Your task to perform on an android device: check android version Image 0: 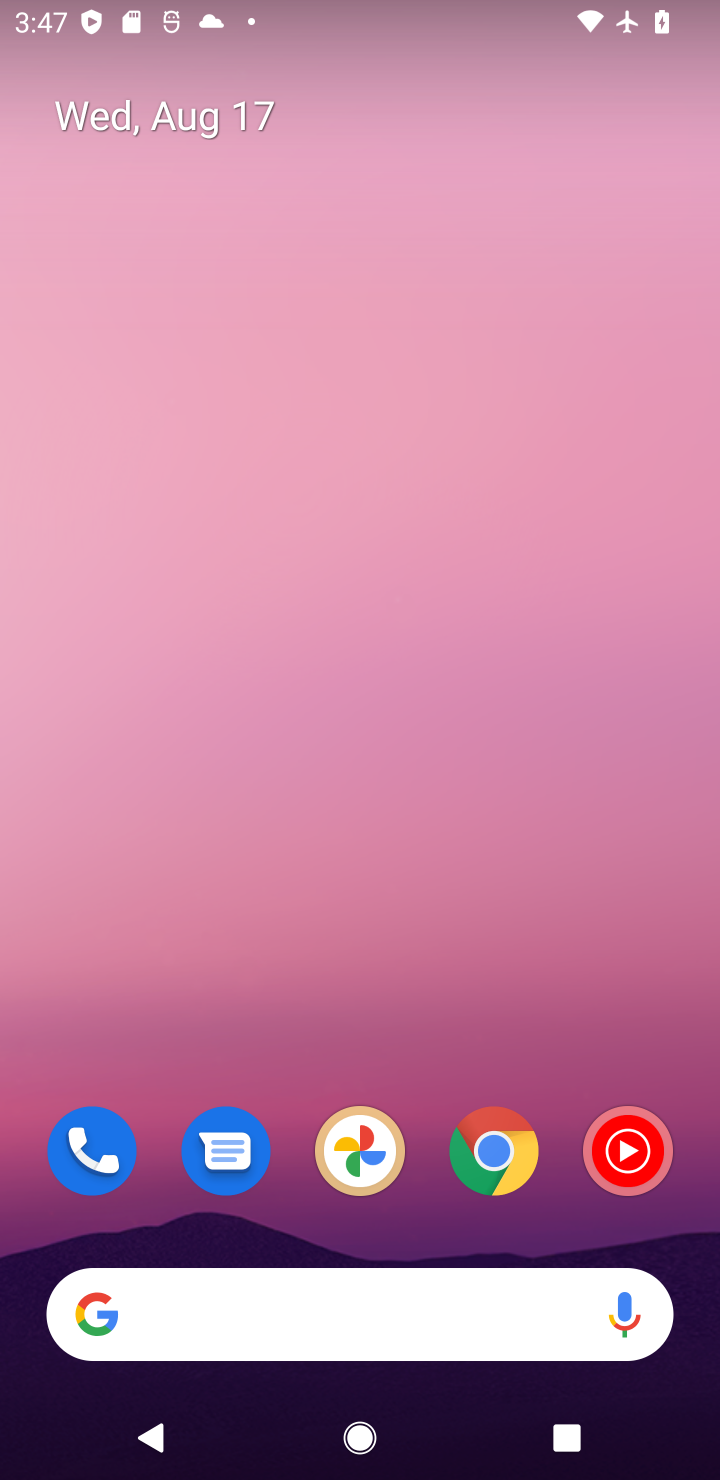
Step 0: click (416, 302)
Your task to perform on an android device: check android version Image 1: 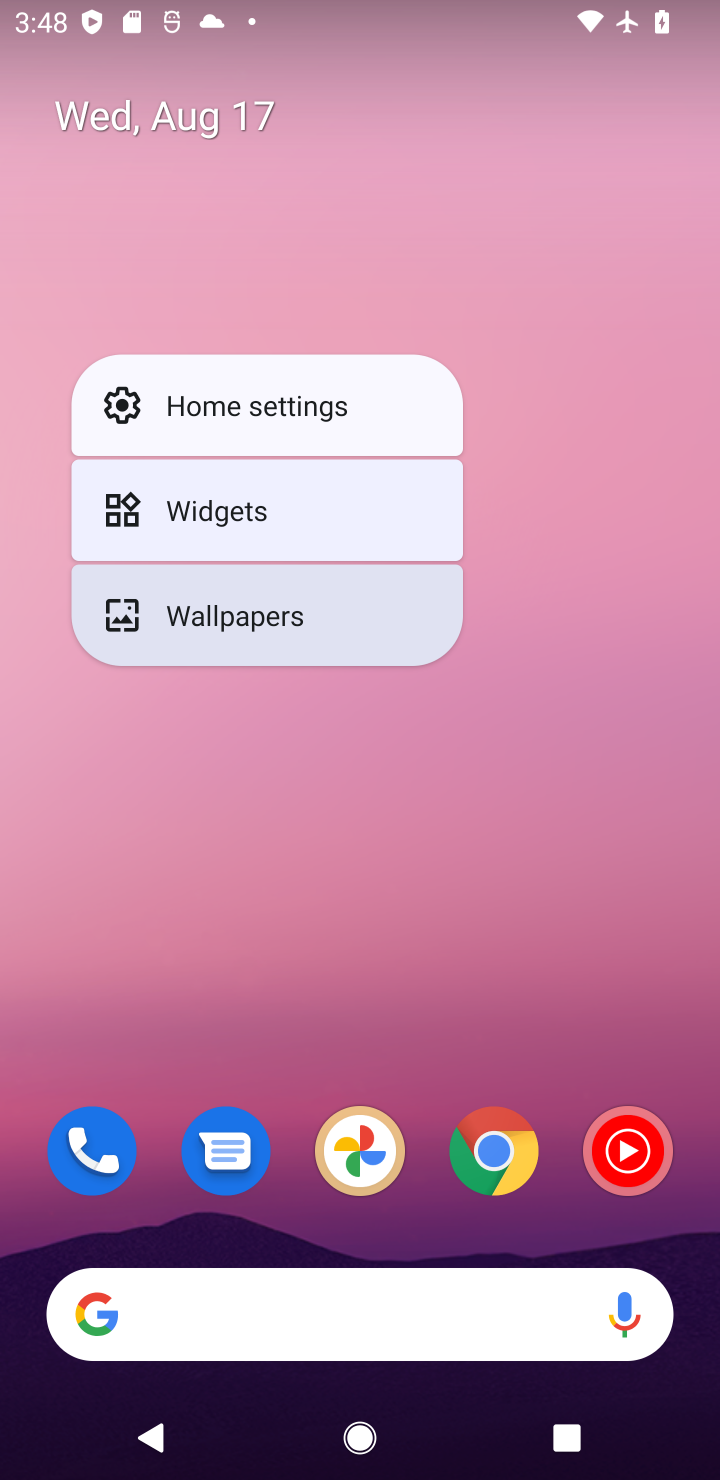
Step 1: click (290, 925)
Your task to perform on an android device: check android version Image 2: 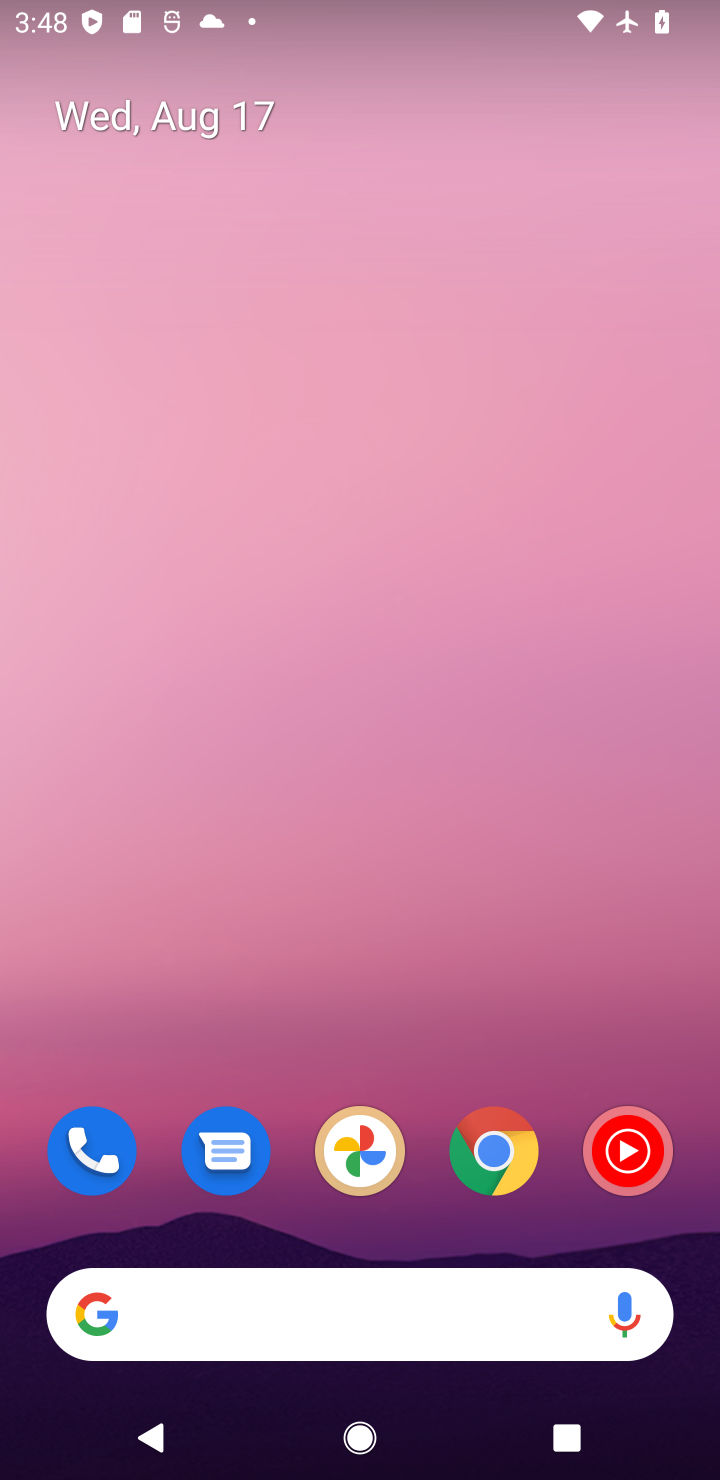
Step 2: drag from (324, 872) to (387, 39)
Your task to perform on an android device: check android version Image 3: 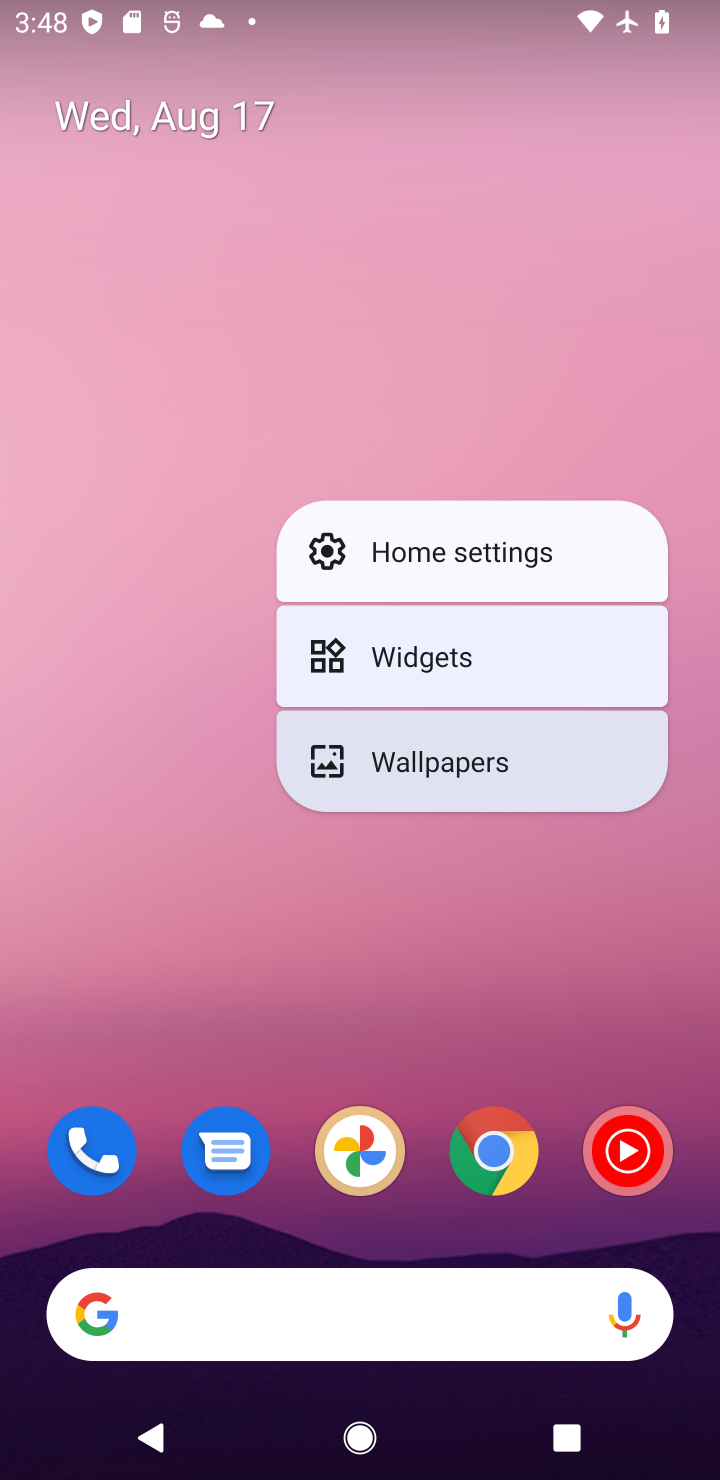
Step 3: click (278, 994)
Your task to perform on an android device: check android version Image 4: 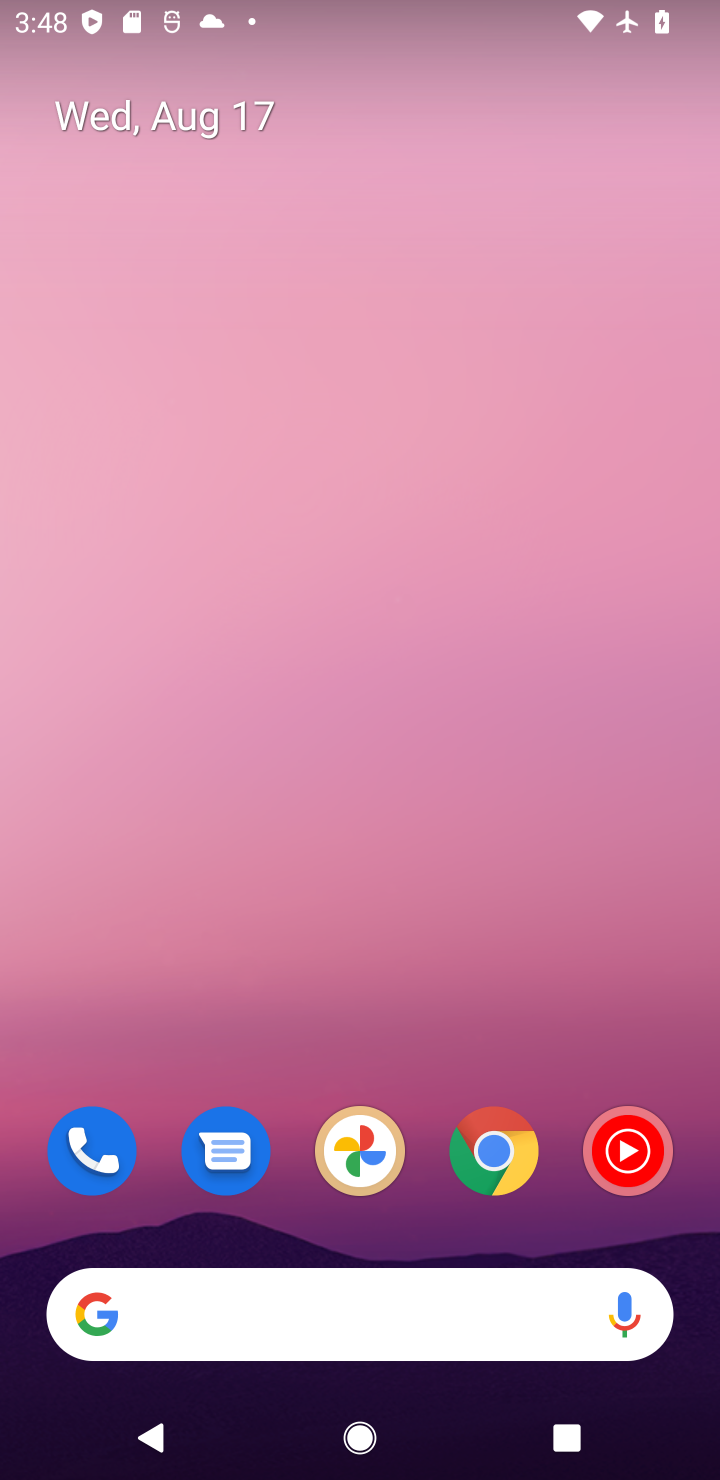
Step 4: drag from (311, 1248) to (353, 346)
Your task to perform on an android device: check android version Image 5: 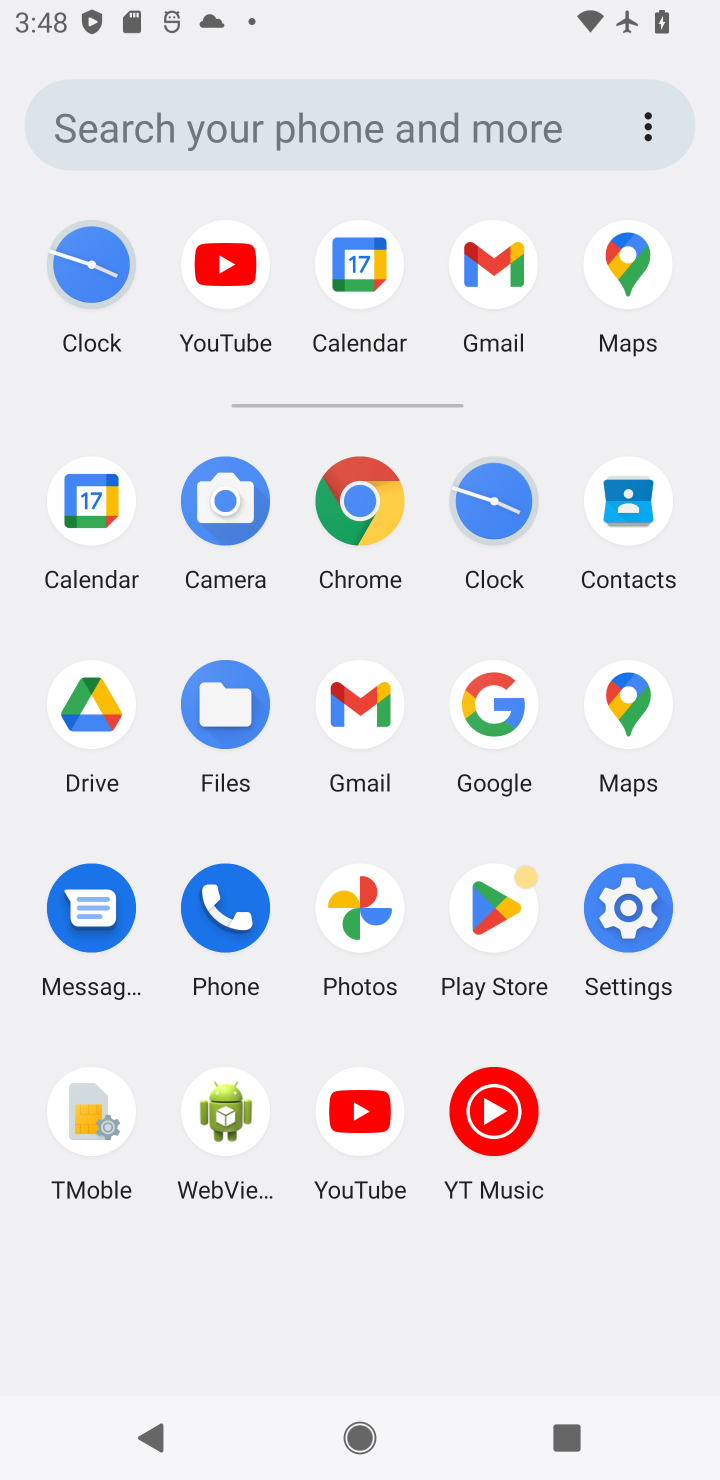
Step 5: click (607, 930)
Your task to perform on an android device: check android version Image 6: 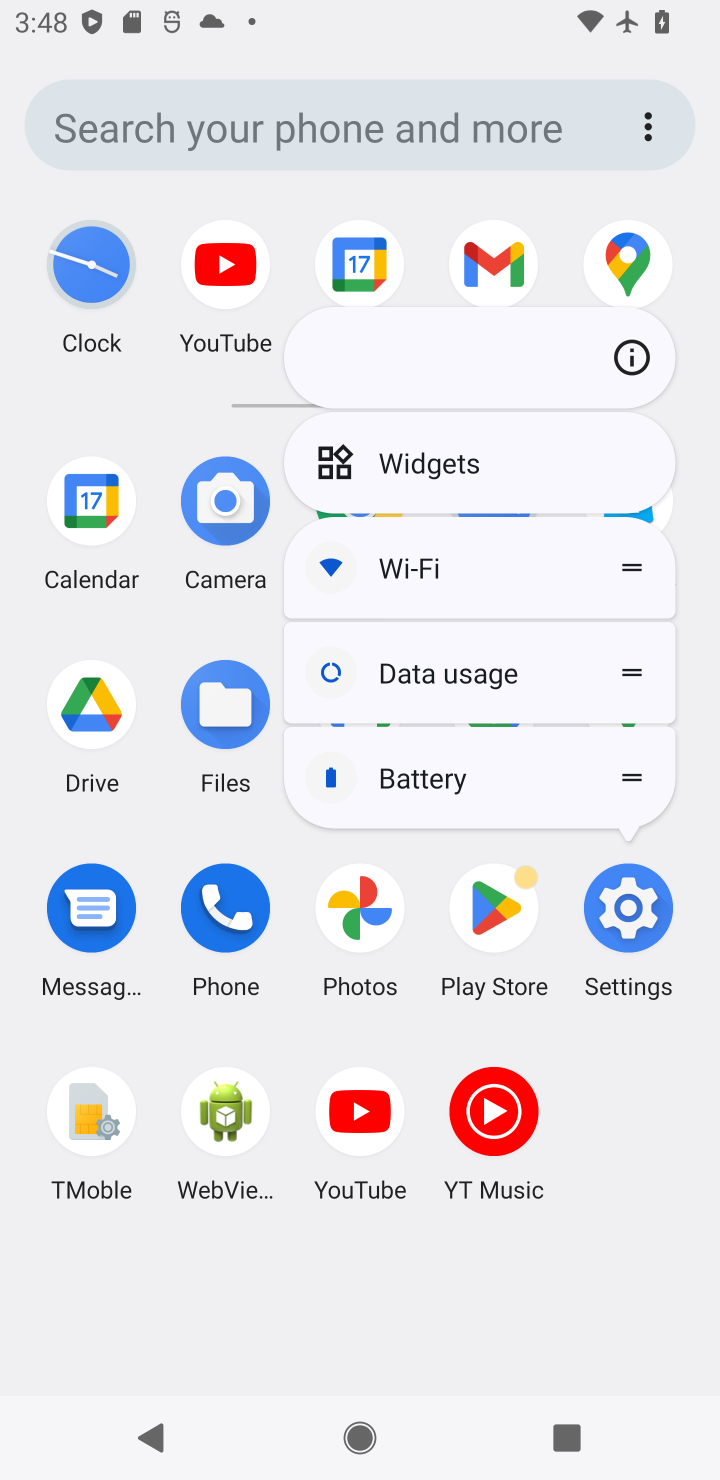
Step 6: click (607, 930)
Your task to perform on an android device: check android version Image 7: 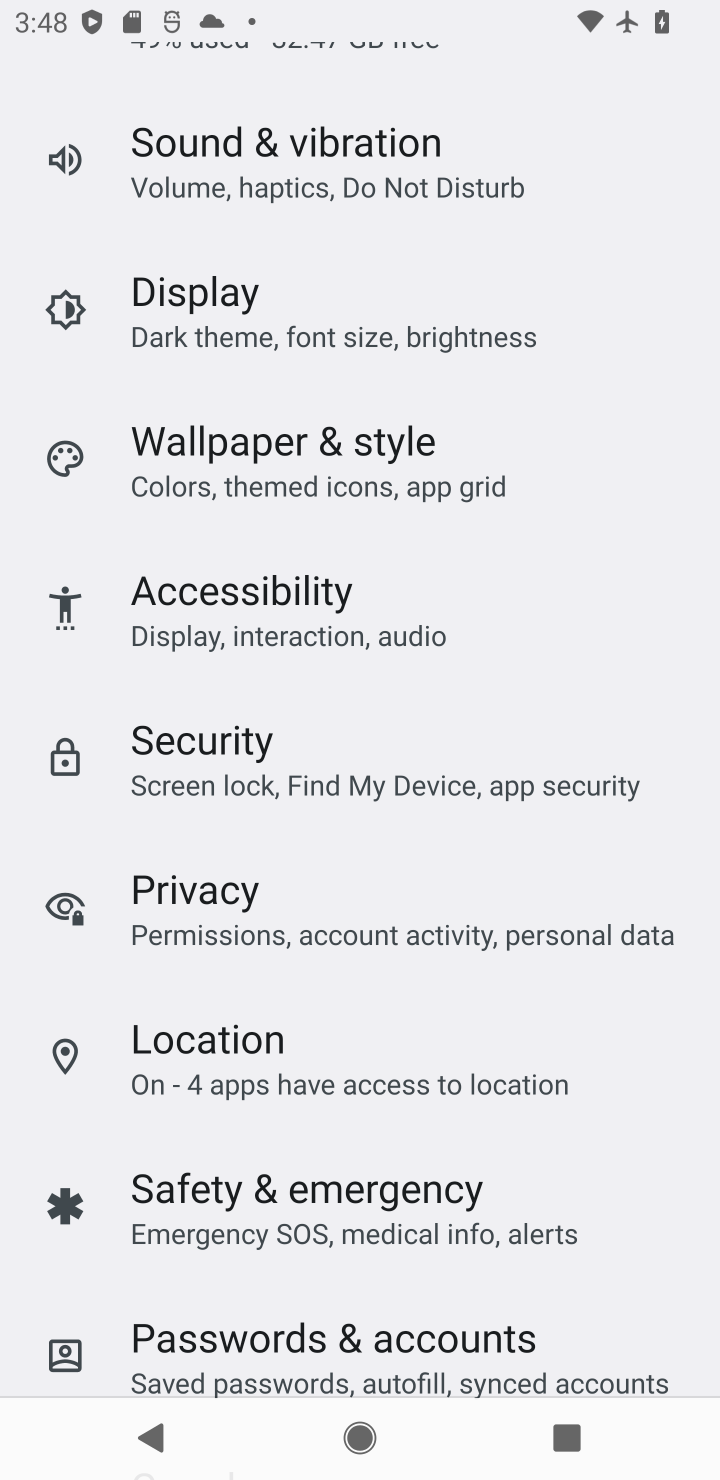
Step 7: drag from (262, 1284) to (406, 111)
Your task to perform on an android device: check android version Image 8: 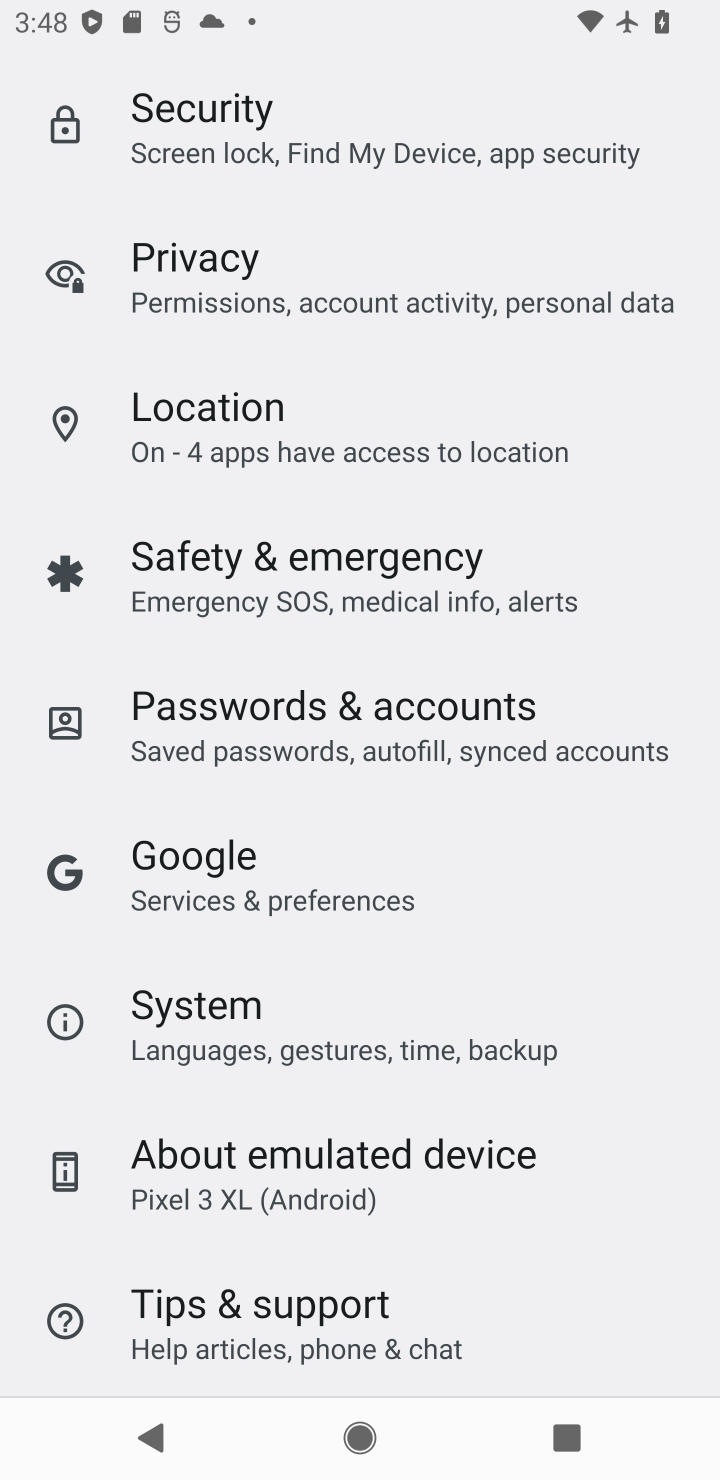
Step 8: drag from (331, 1000) to (346, 209)
Your task to perform on an android device: check android version Image 9: 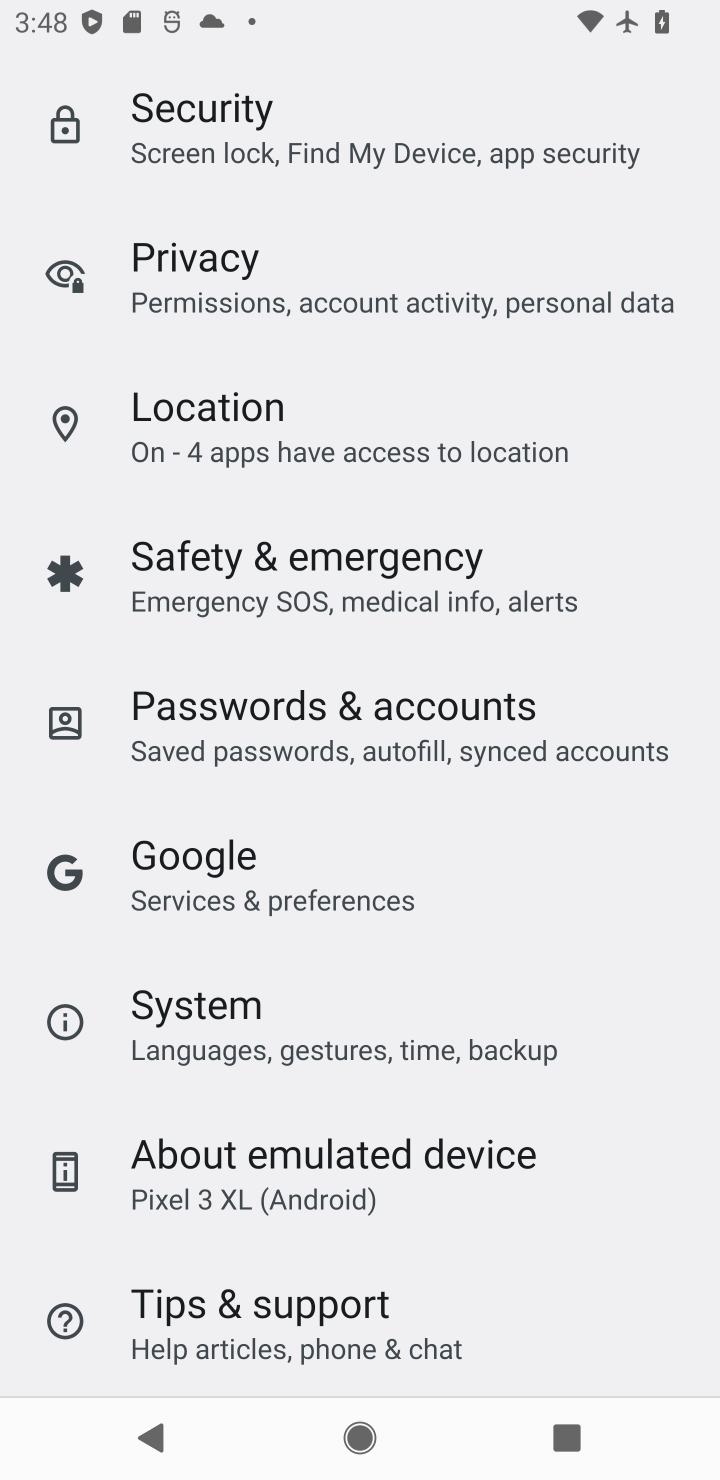
Step 9: click (187, 1158)
Your task to perform on an android device: check android version Image 10: 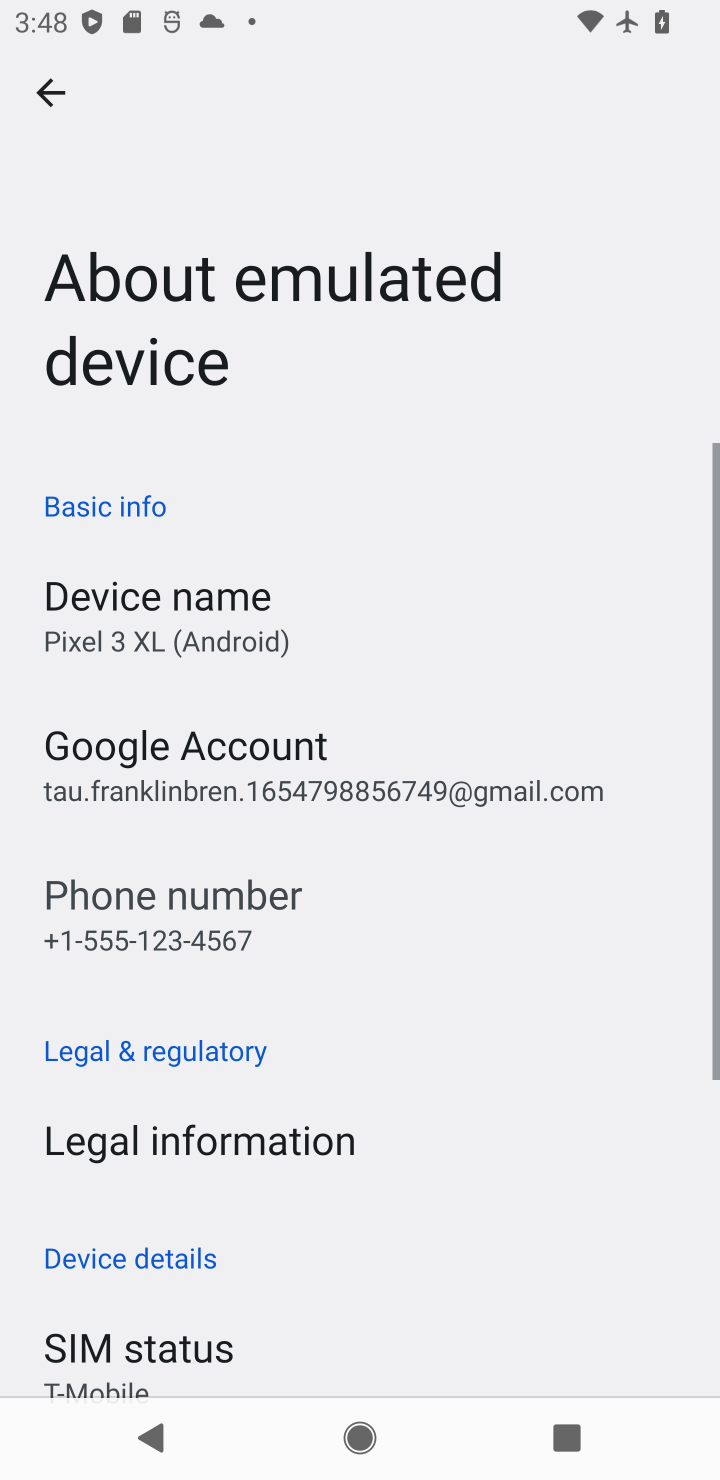
Step 10: drag from (203, 1253) to (398, 303)
Your task to perform on an android device: check android version Image 11: 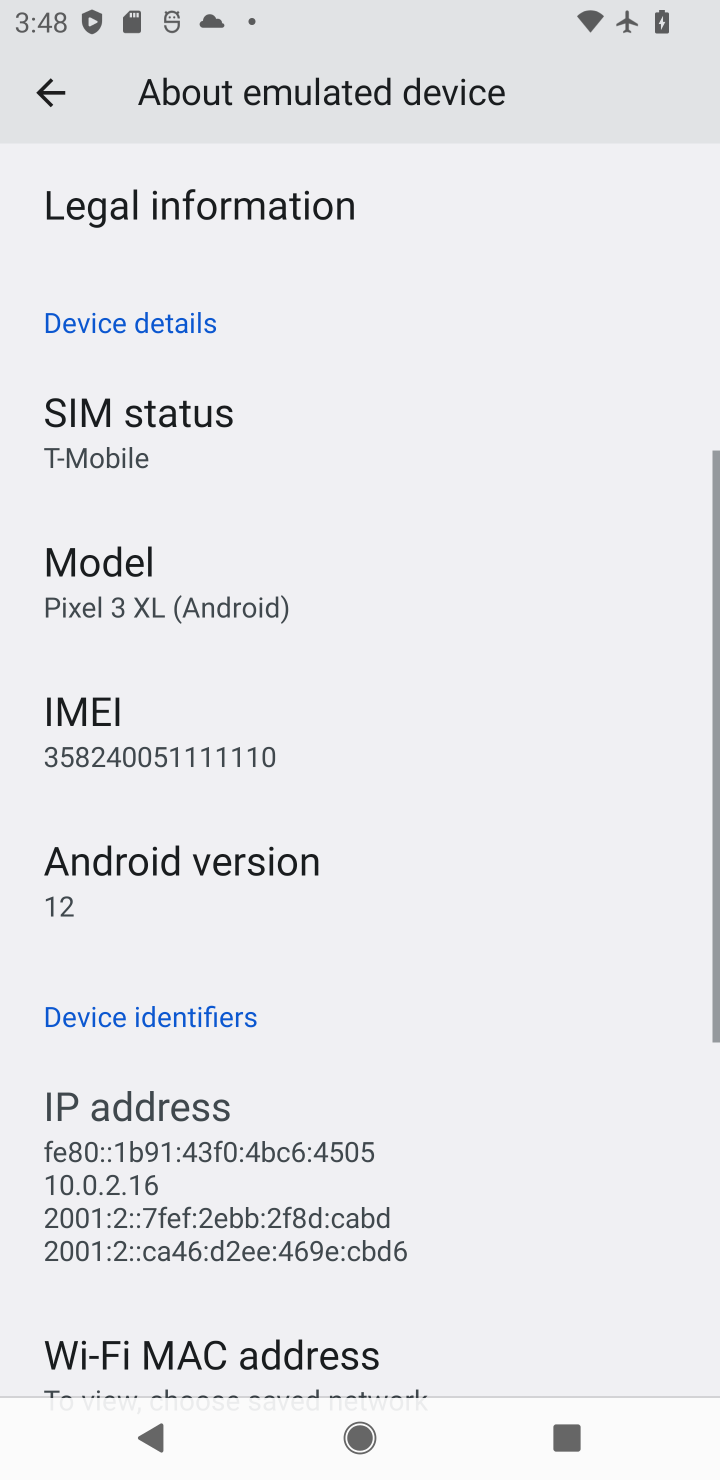
Step 11: click (211, 904)
Your task to perform on an android device: check android version Image 12: 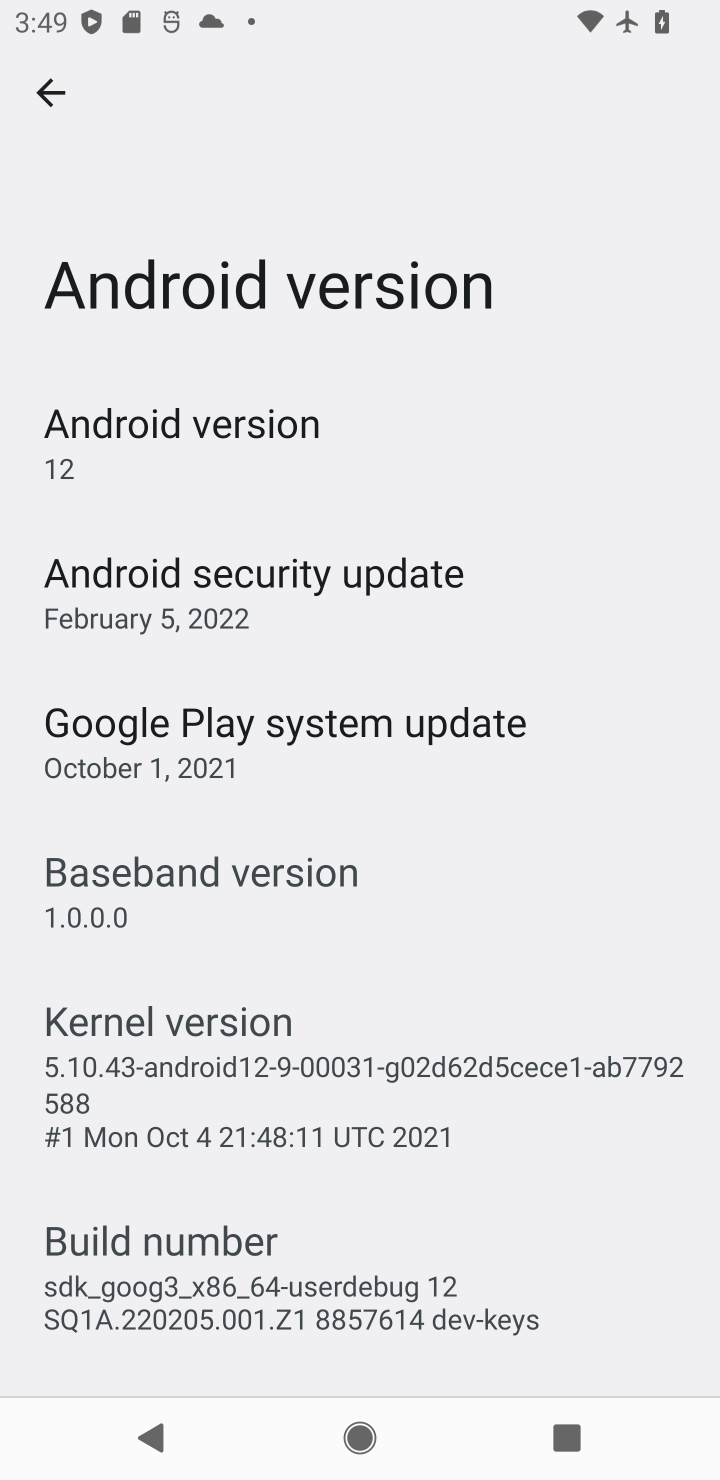
Step 12: task complete